Your task to perform on an android device: See recent photos Image 0: 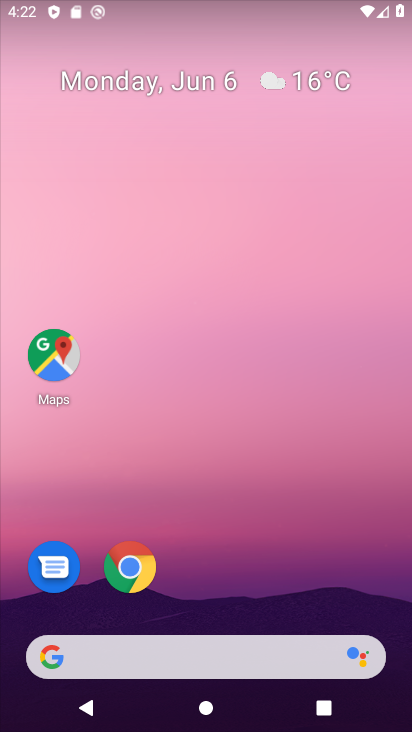
Step 0: drag from (186, 641) to (311, 214)
Your task to perform on an android device: See recent photos Image 1: 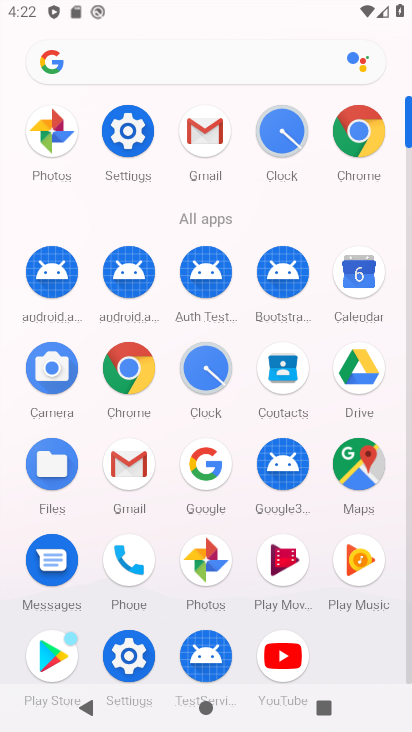
Step 1: click (216, 577)
Your task to perform on an android device: See recent photos Image 2: 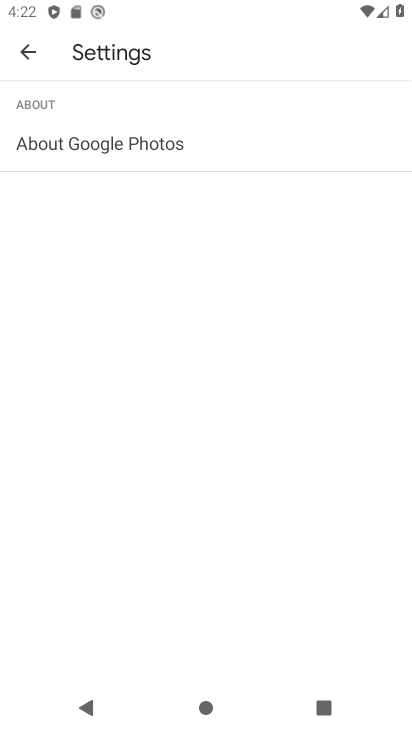
Step 2: click (25, 64)
Your task to perform on an android device: See recent photos Image 3: 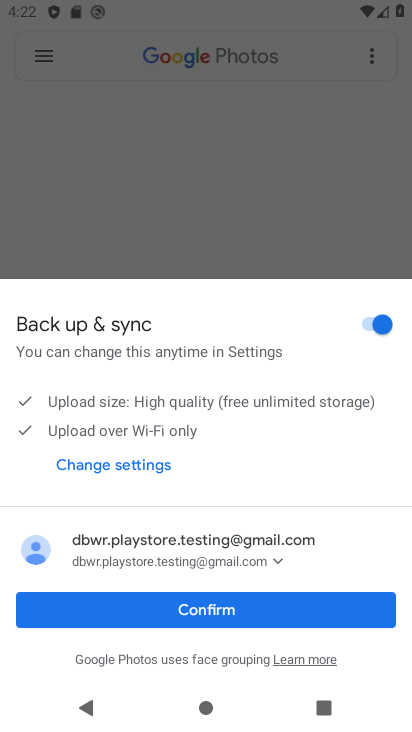
Step 3: click (225, 613)
Your task to perform on an android device: See recent photos Image 4: 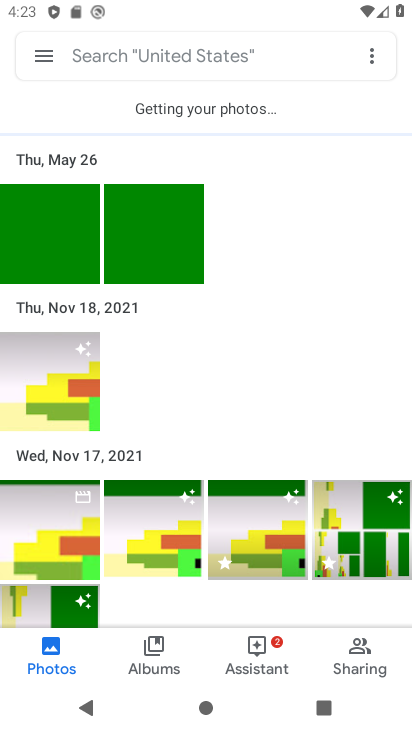
Step 4: task complete